Your task to perform on an android device: turn on sleep mode Image 0: 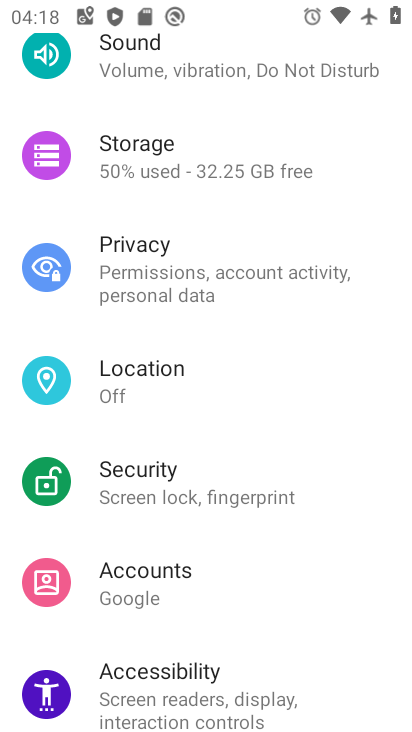
Step 0: drag from (385, 217) to (394, 715)
Your task to perform on an android device: turn on sleep mode Image 1: 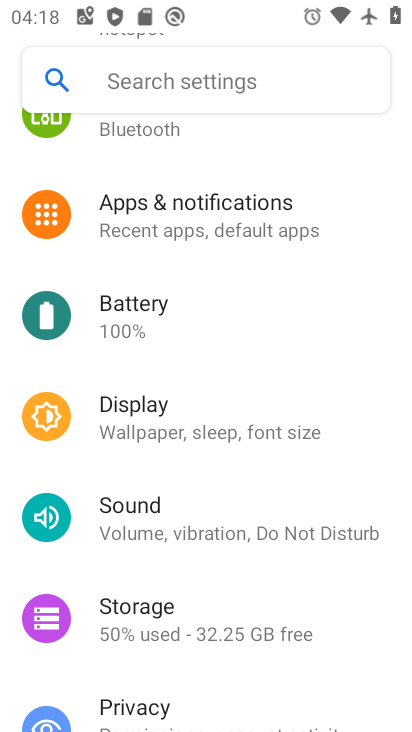
Step 1: drag from (391, 272) to (344, 718)
Your task to perform on an android device: turn on sleep mode Image 2: 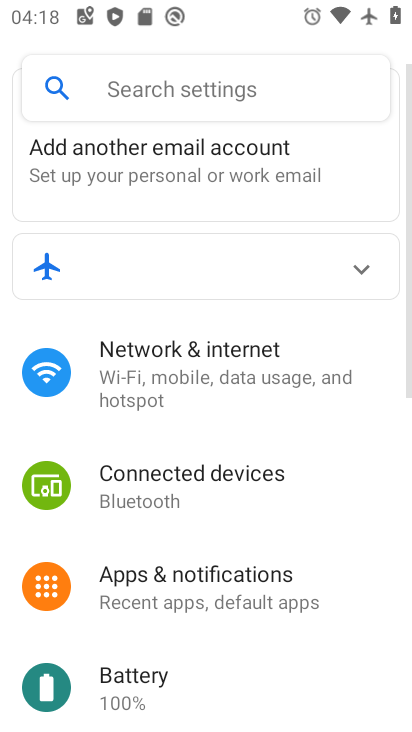
Step 2: drag from (290, 669) to (284, 28)
Your task to perform on an android device: turn on sleep mode Image 3: 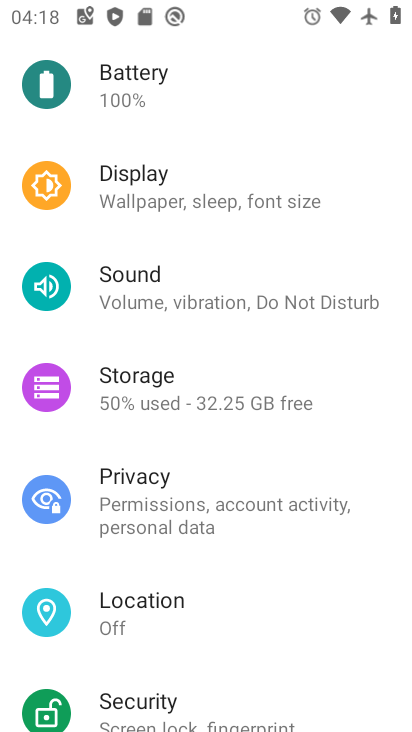
Step 3: click (263, 196)
Your task to perform on an android device: turn on sleep mode Image 4: 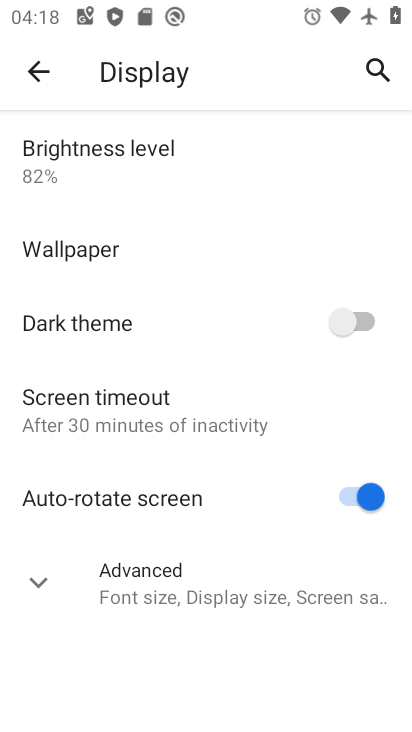
Step 4: task complete